Your task to perform on an android device: Open internet settings Image 0: 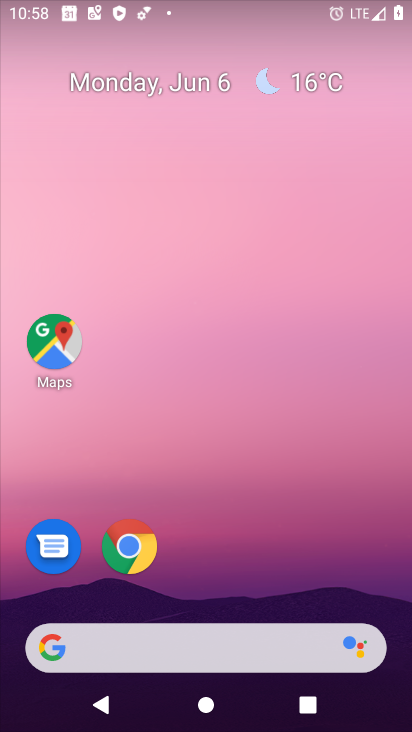
Step 0: drag from (229, 579) to (299, 109)
Your task to perform on an android device: Open internet settings Image 1: 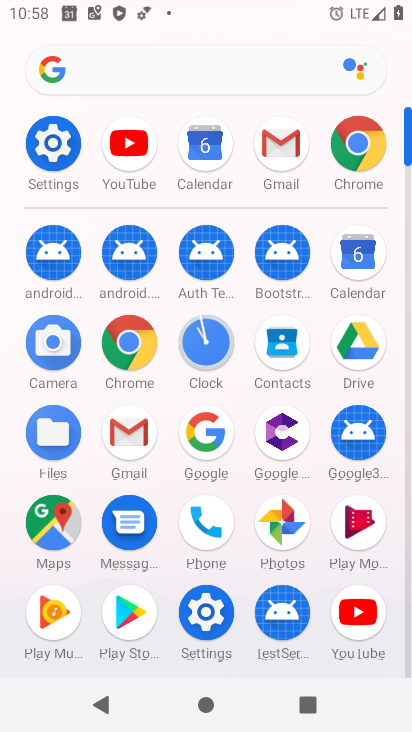
Step 1: click (45, 165)
Your task to perform on an android device: Open internet settings Image 2: 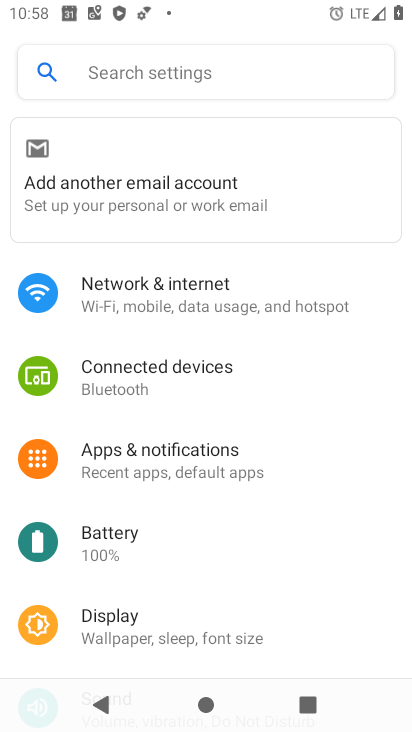
Step 2: click (181, 308)
Your task to perform on an android device: Open internet settings Image 3: 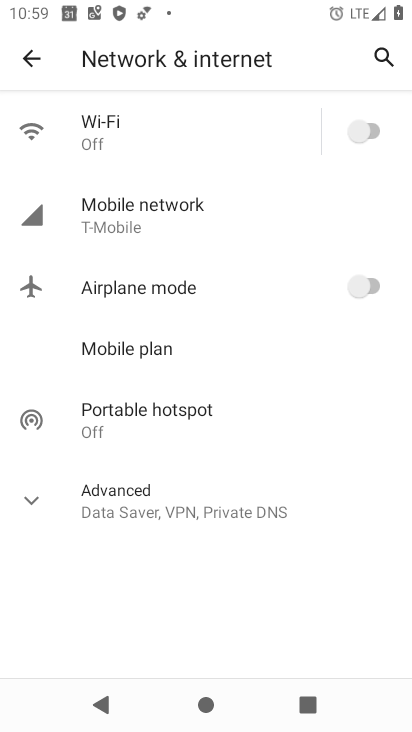
Step 3: task complete